Your task to perform on an android device: visit the assistant section in the google photos Image 0: 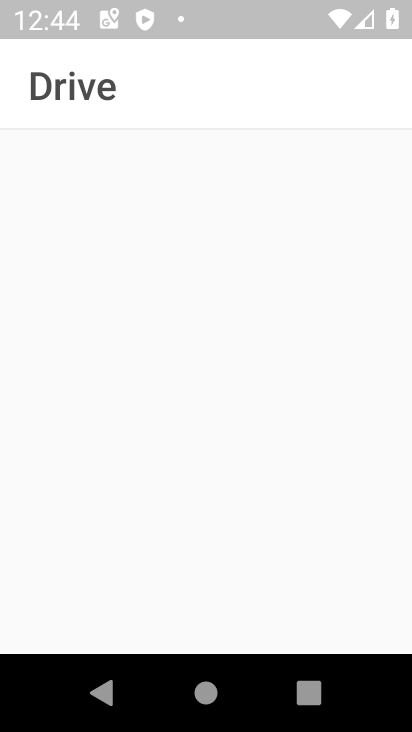
Step 0: press home button
Your task to perform on an android device: visit the assistant section in the google photos Image 1: 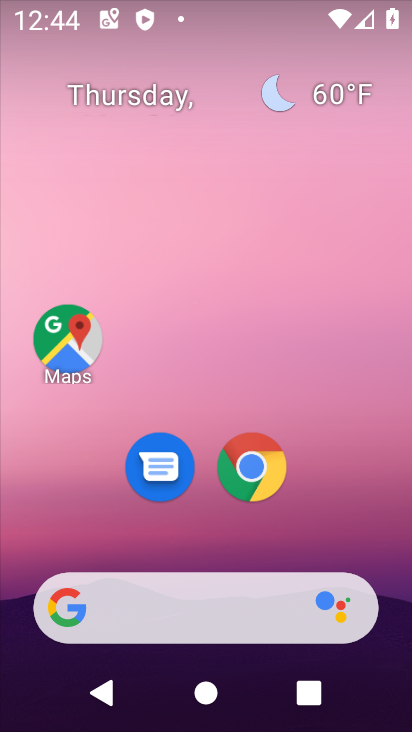
Step 1: drag from (207, 526) to (216, 61)
Your task to perform on an android device: visit the assistant section in the google photos Image 2: 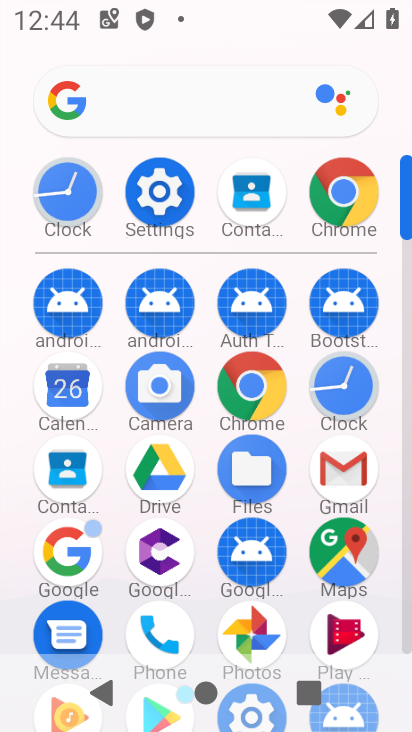
Step 2: click (249, 632)
Your task to perform on an android device: visit the assistant section in the google photos Image 3: 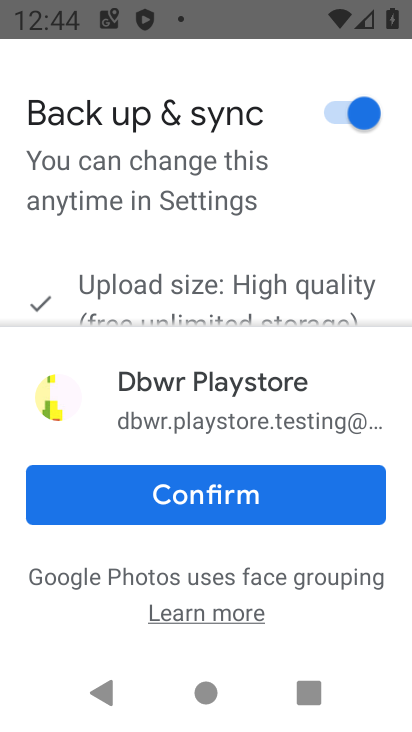
Step 3: click (222, 489)
Your task to perform on an android device: visit the assistant section in the google photos Image 4: 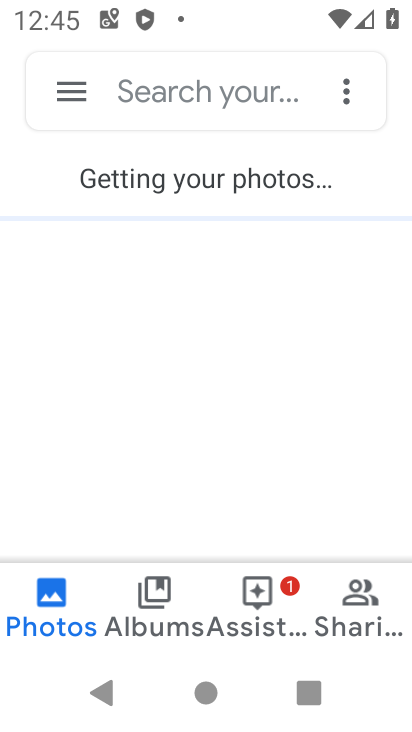
Step 4: click (260, 617)
Your task to perform on an android device: visit the assistant section in the google photos Image 5: 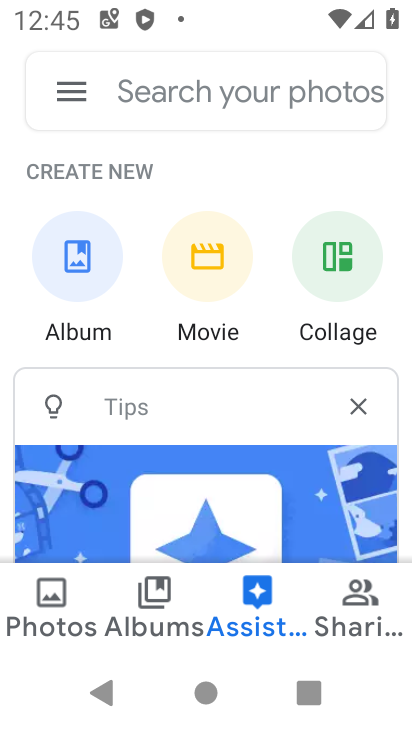
Step 5: task complete